Your task to perform on an android device: turn off location history Image 0: 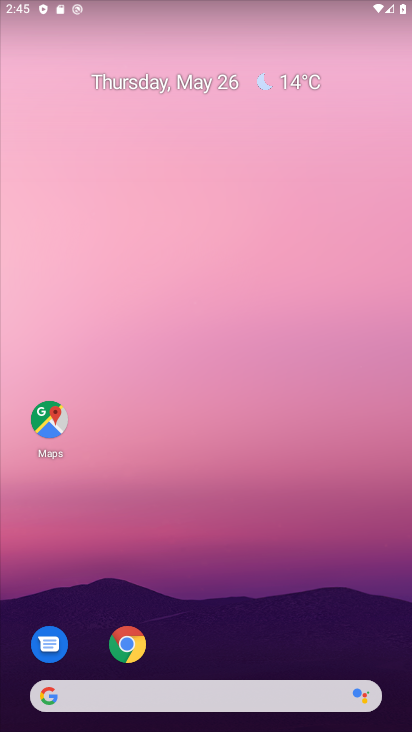
Step 0: drag from (339, 582) to (263, 228)
Your task to perform on an android device: turn off location history Image 1: 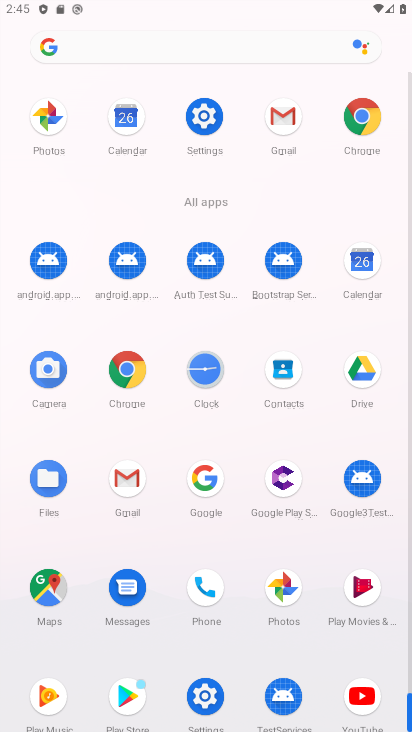
Step 1: click (206, 696)
Your task to perform on an android device: turn off location history Image 2: 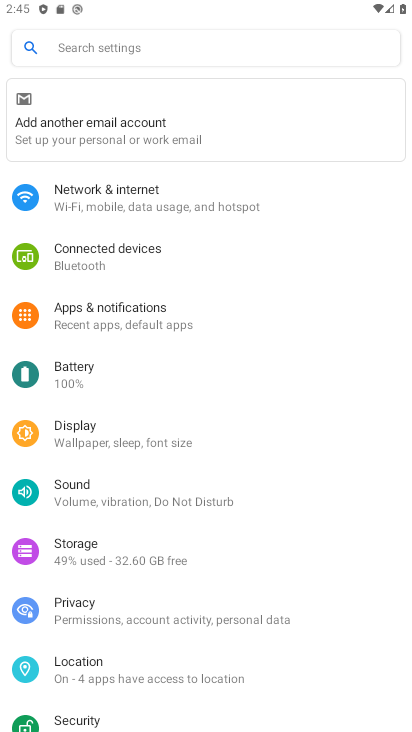
Step 2: click (113, 673)
Your task to perform on an android device: turn off location history Image 3: 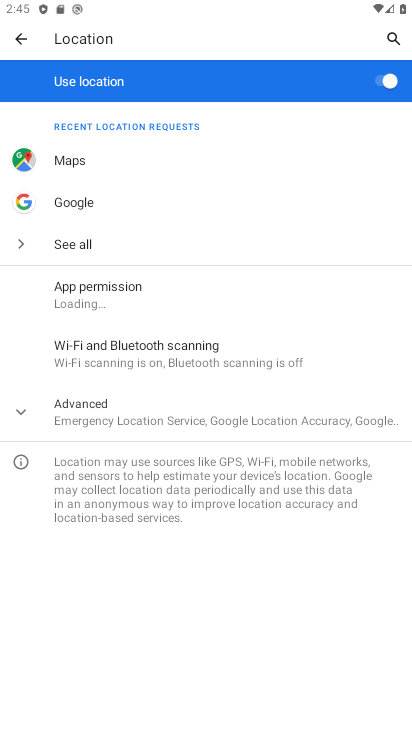
Step 3: click (154, 419)
Your task to perform on an android device: turn off location history Image 4: 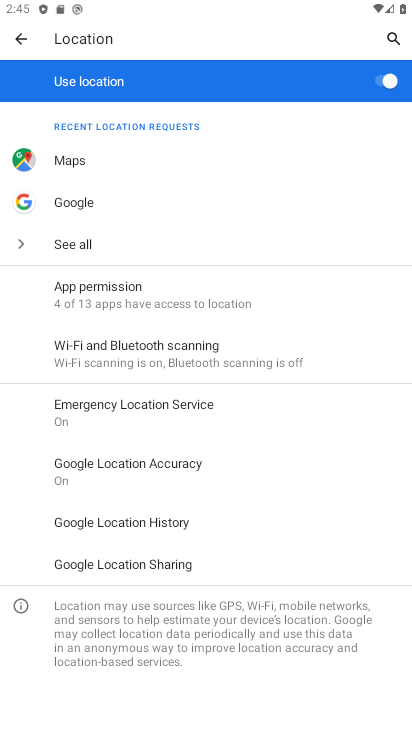
Step 4: click (157, 518)
Your task to perform on an android device: turn off location history Image 5: 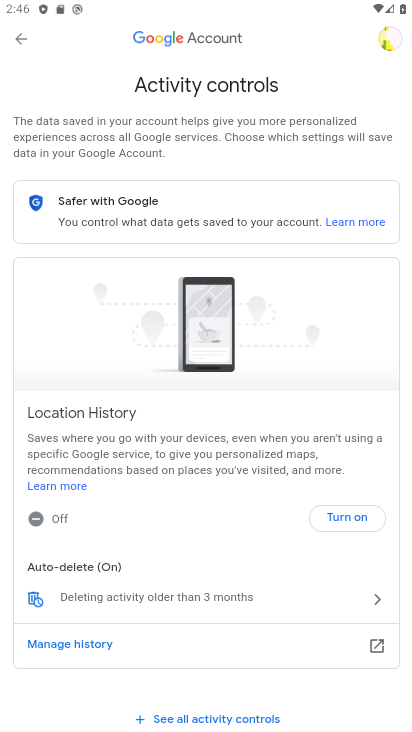
Step 5: task complete